Your task to perform on an android device: turn on location history Image 0: 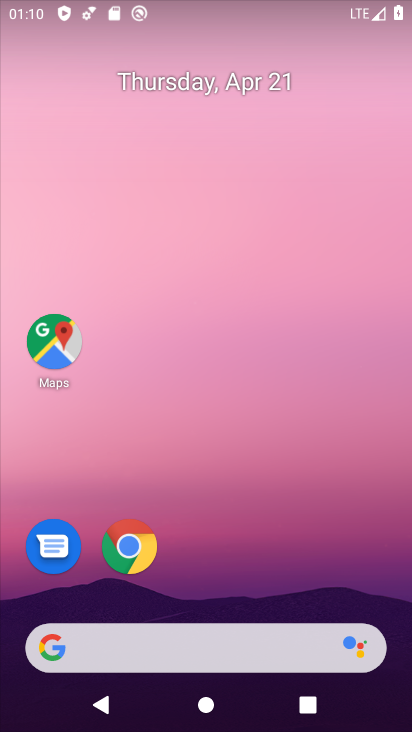
Step 0: drag from (290, 308) to (322, 97)
Your task to perform on an android device: turn on location history Image 1: 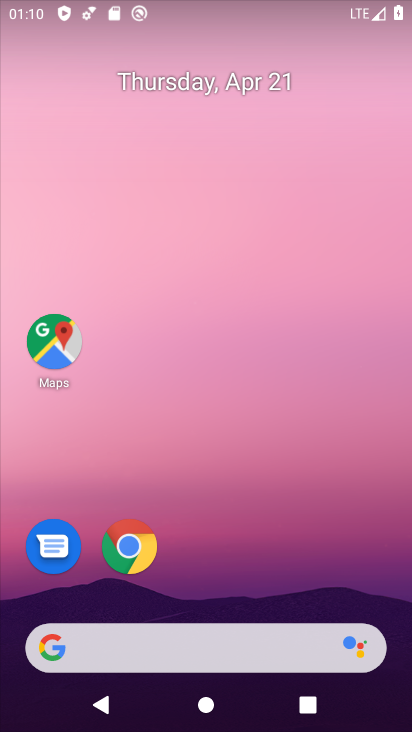
Step 1: drag from (244, 451) to (247, 217)
Your task to perform on an android device: turn on location history Image 2: 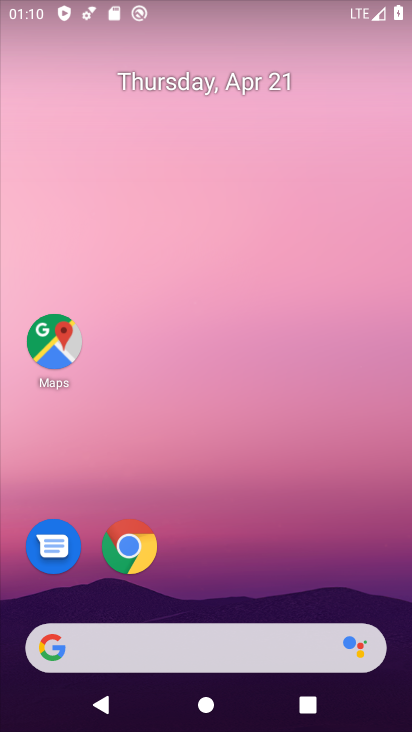
Step 2: drag from (242, 577) to (239, 128)
Your task to perform on an android device: turn on location history Image 3: 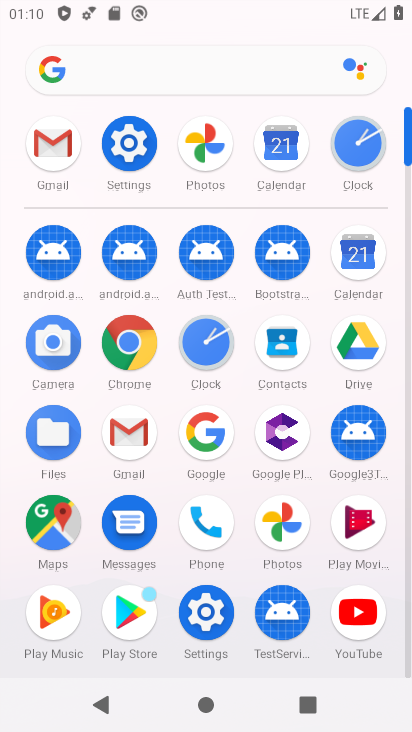
Step 3: click (141, 155)
Your task to perform on an android device: turn on location history Image 4: 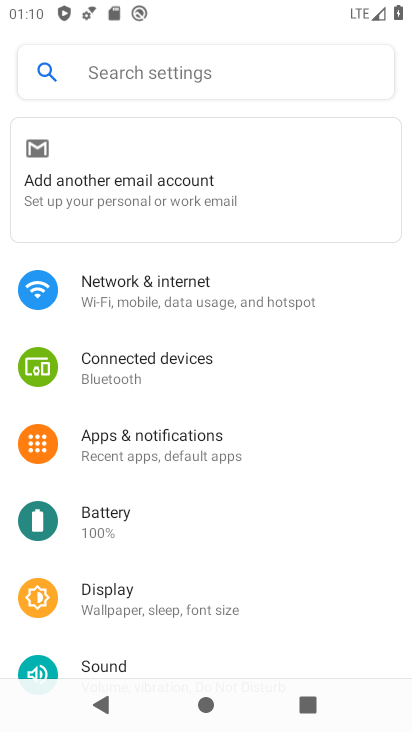
Step 4: drag from (218, 546) to (217, 250)
Your task to perform on an android device: turn on location history Image 5: 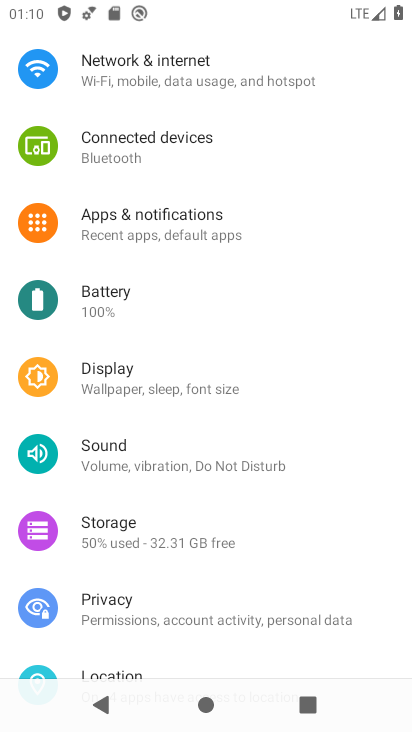
Step 5: drag from (187, 602) to (186, 343)
Your task to perform on an android device: turn on location history Image 6: 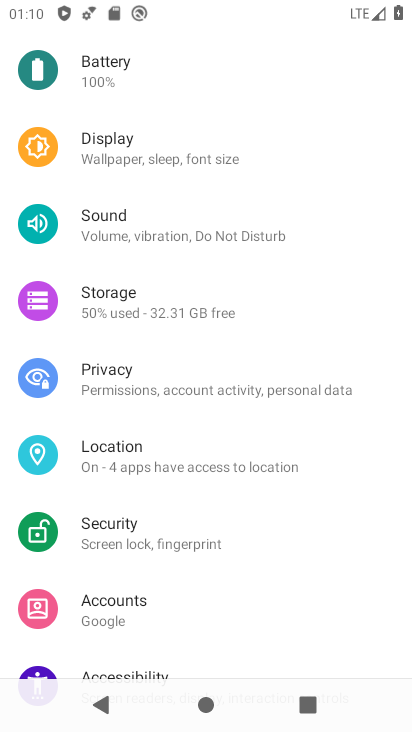
Step 6: click (165, 473)
Your task to perform on an android device: turn on location history Image 7: 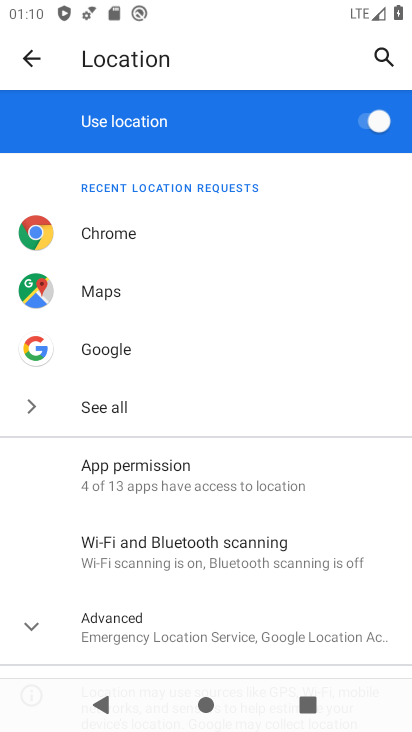
Step 7: click (33, 628)
Your task to perform on an android device: turn on location history Image 8: 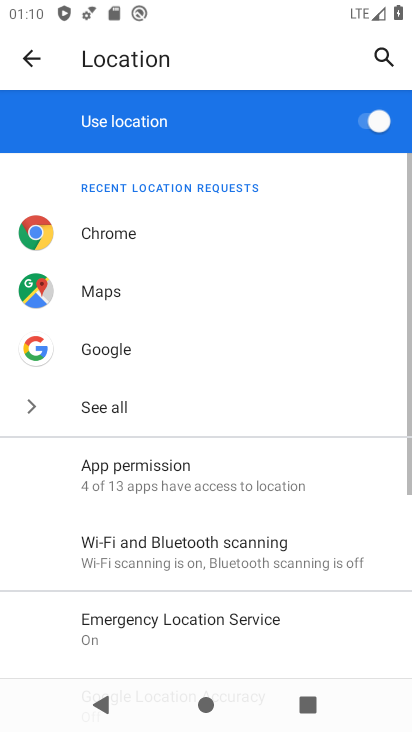
Step 8: drag from (193, 619) to (220, 381)
Your task to perform on an android device: turn on location history Image 9: 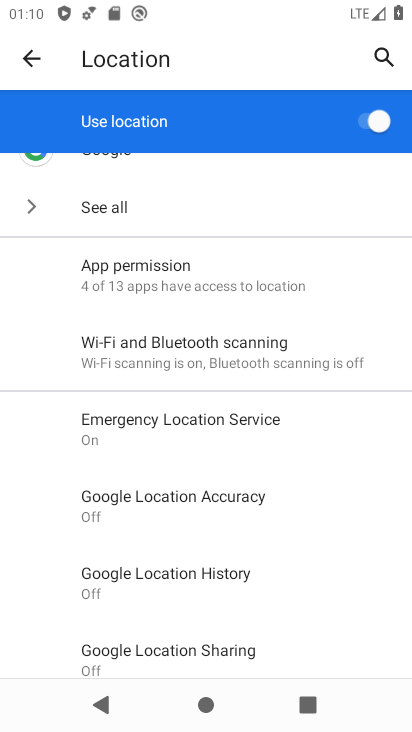
Step 9: click (211, 585)
Your task to perform on an android device: turn on location history Image 10: 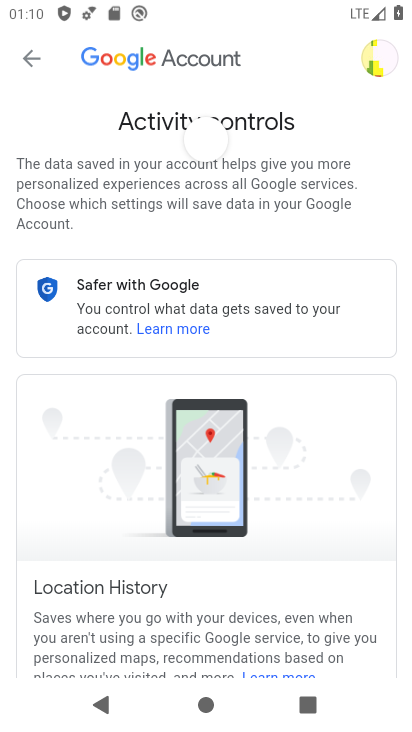
Step 10: task complete